Your task to perform on an android device: Search for seafood restaurants on Google Maps Image 0: 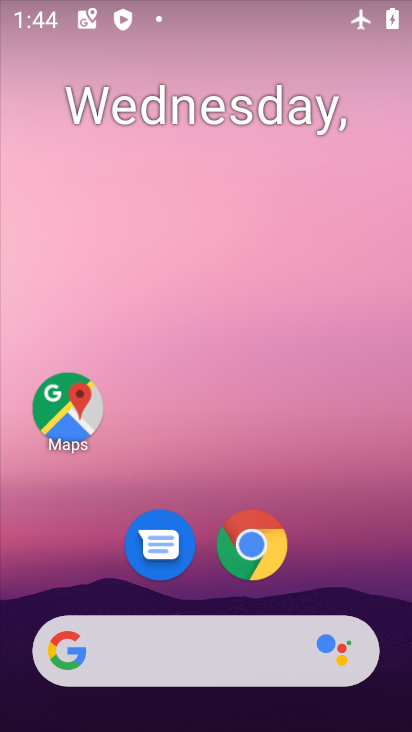
Step 0: drag from (336, 513) to (286, 14)
Your task to perform on an android device: Search for seafood restaurants on Google Maps Image 1: 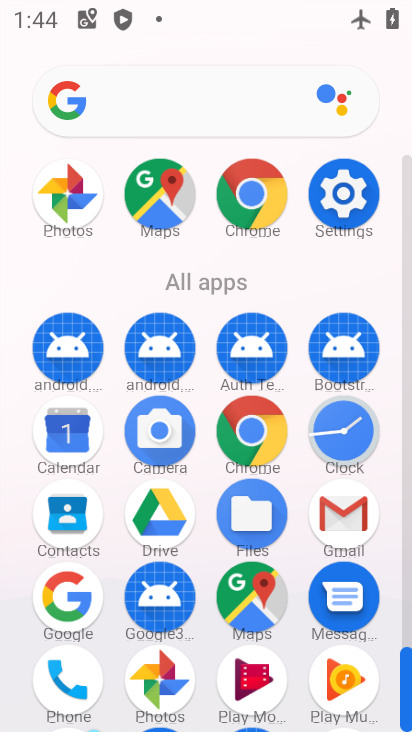
Step 1: click (155, 203)
Your task to perform on an android device: Search for seafood restaurants on Google Maps Image 2: 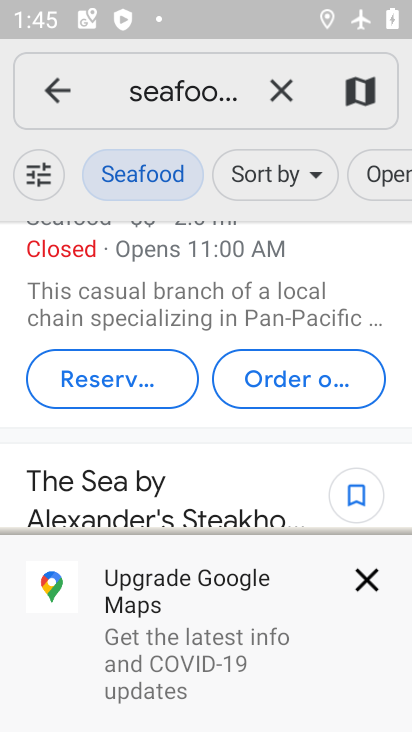
Step 2: task complete